Your task to perform on an android device: turn on showing notifications on the lock screen Image 0: 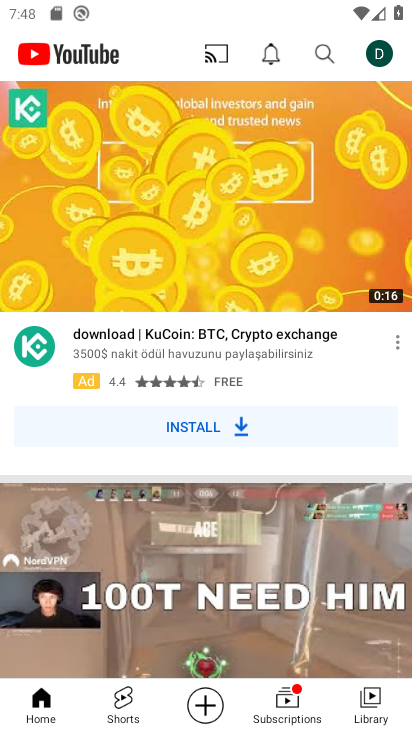
Step 0: press home button
Your task to perform on an android device: turn on showing notifications on the lock screen Image 1: 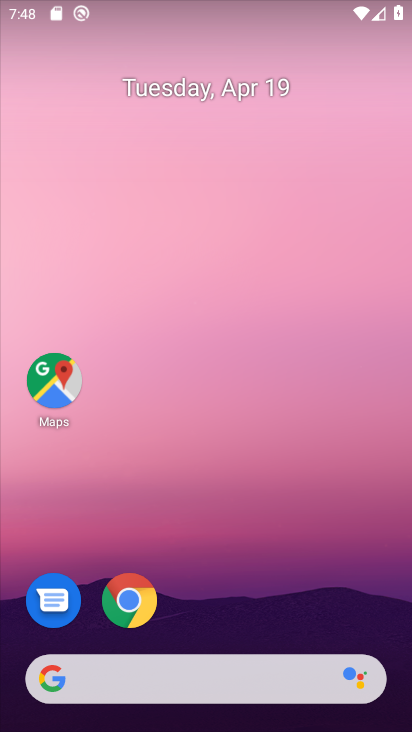
Step 1: drag from (370, 598) to (370, 77)
Your task to perform on an android device: turn on showing notifications on the lock screen Image 2: 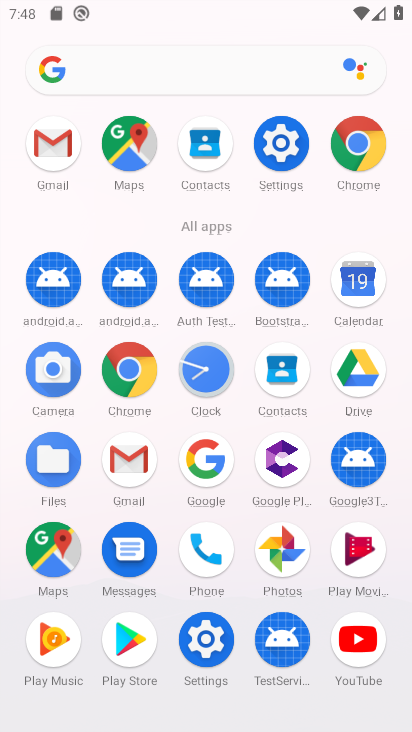
Step 2: click (289, 152)
Your task to perform on an android device: turn on showing notifications on the lock screen Image 3: 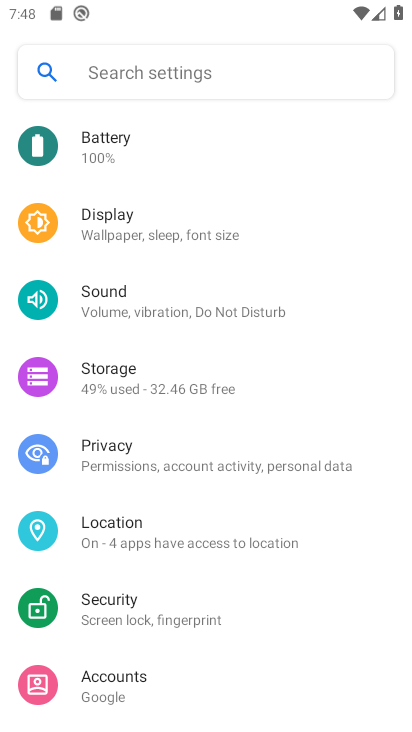
Step 3: drag from (356, 610) to (379, 442)
Your task to perform on an android device: turn on showing notifications on the lock screen Image 4: 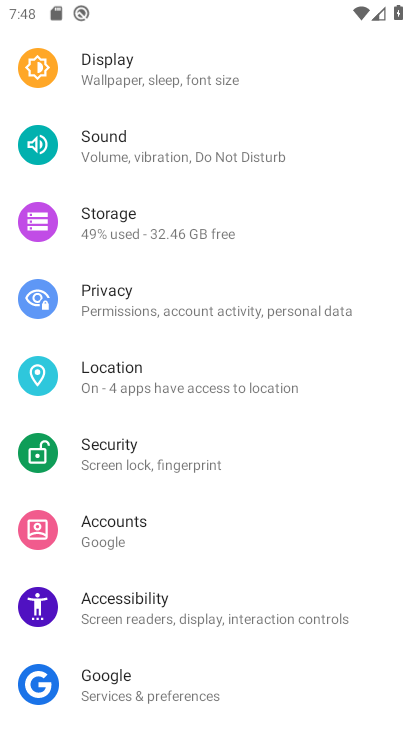
Step 4: drag from (371, 597) to (369, 388)
Your task to perform on an android device: turn on showing notifications on the lock screen Image 5: 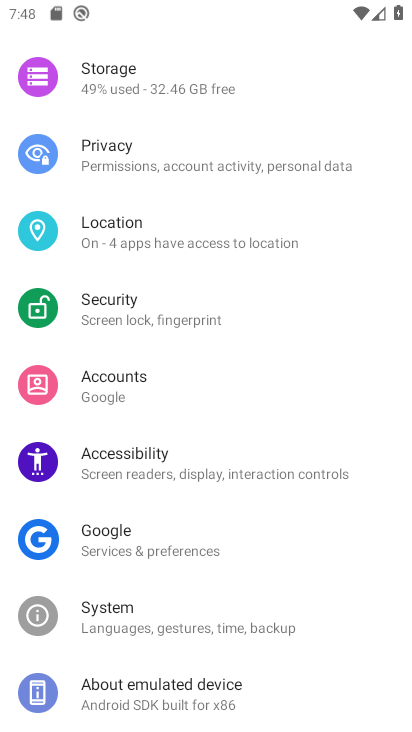
Step 5: drag from (376, 389) to (362, 527)
Your task to perform on an android device: turn on showing notifications on the lock screen Image 6: 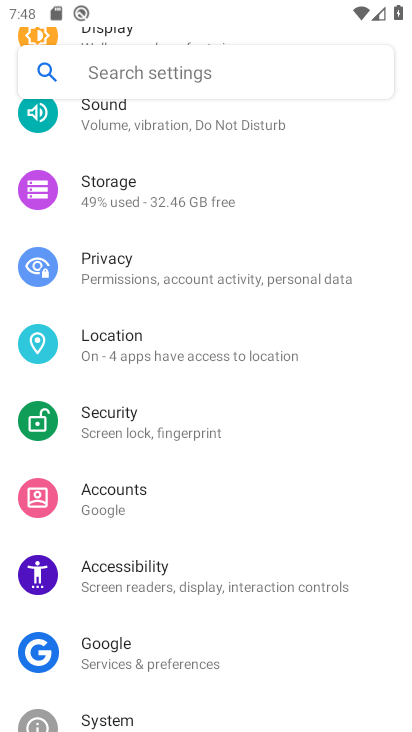
Step 6: drag from (378, 373) to (385, 510)
Your task to perform on an android device: turn on showing notifications on the lock screen Image 7: 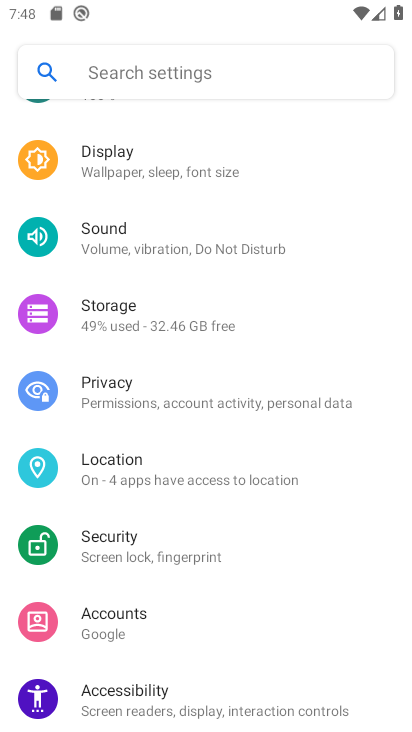
Step 7: drag from (384, 374) to (389, 519)
Your task to perform on an android device: turn on showing notifications on the lock screen Image 8: 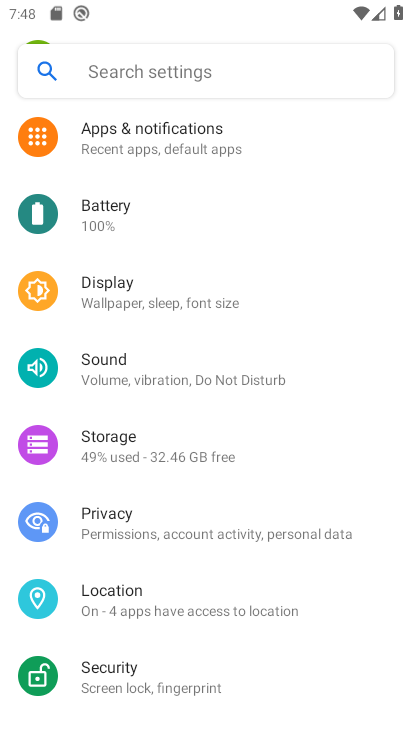
Step 8: drag from (373, 386) to (367, 522)
Your task to perform on an android device: turn on showing notifications on the lock screen Image 9: 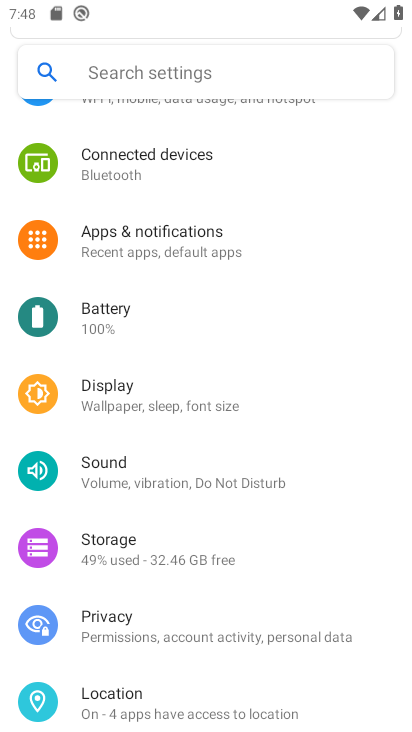
Step 9: drag from (351, 325) to (351, 496)
Your task to perform on an android device: turn on showing notifications on the lock screen Image 10: 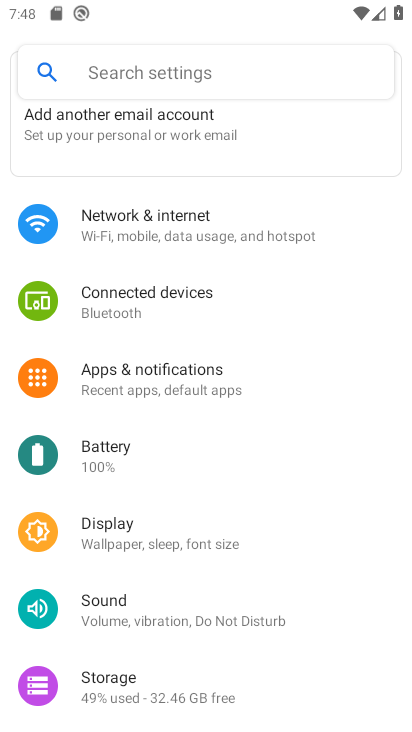
Step 10: click (183, 368)
Your task to perform on an android device: turn on showing notifications on the lock screen Image 11: 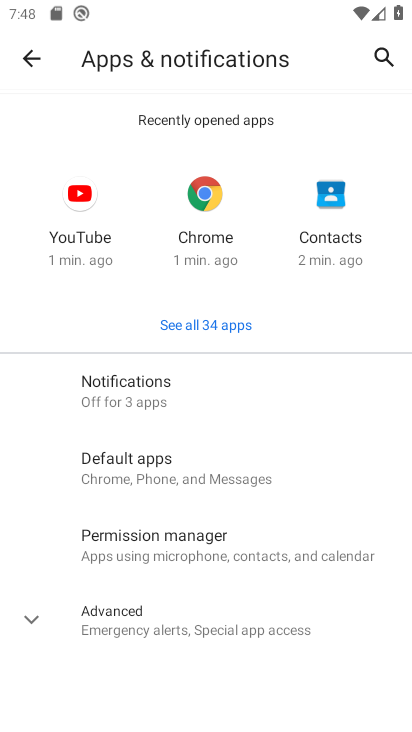
Step 11: click (133, 402)
Your task to perform on an android device: turn on showing notifications on the lock screen Image 12: 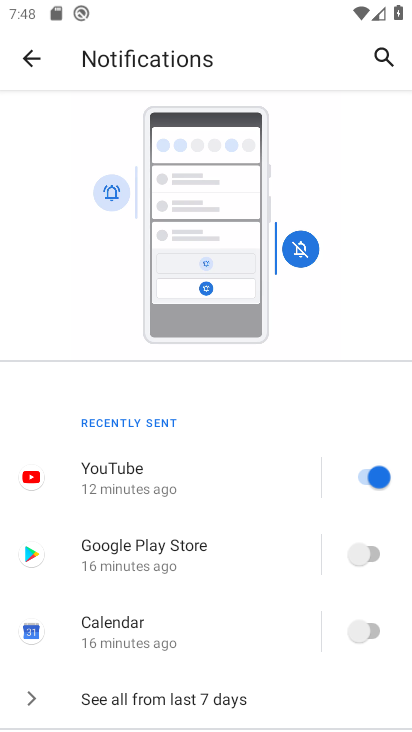
Step 12: drag from (249, 582) to (260, 299)
Your task to perform on an android device: turn on showing notifications on the lock screen Image 13: 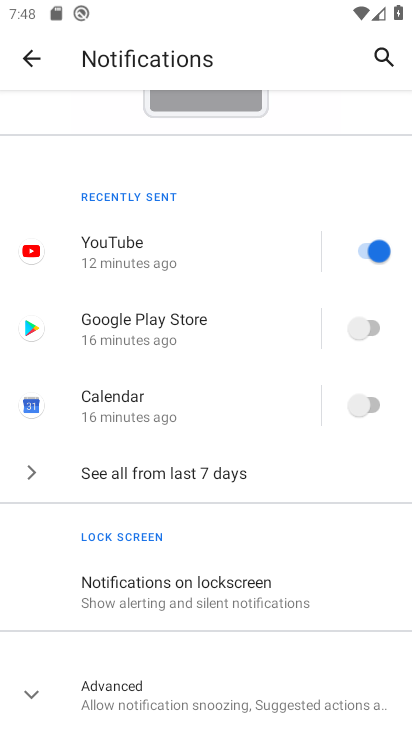
Step 13: drag from (271, 505) to (276, 319)
Your task to perform on an android device: turn on showing notifications on the lock screen Image 14: 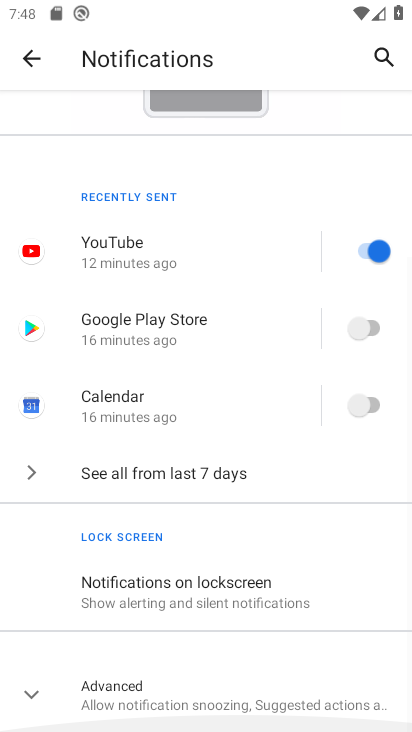
Step 14: click (237, 591)
Your task to perform on an android device: turn on showing notifications on the lock screen Image 15: 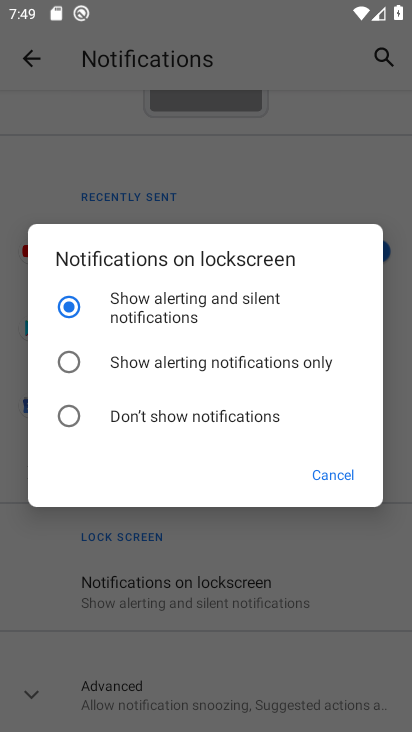
Step 15: task complete